Your task to perform on an android device: Show me the alarms in the clock app Image 0: 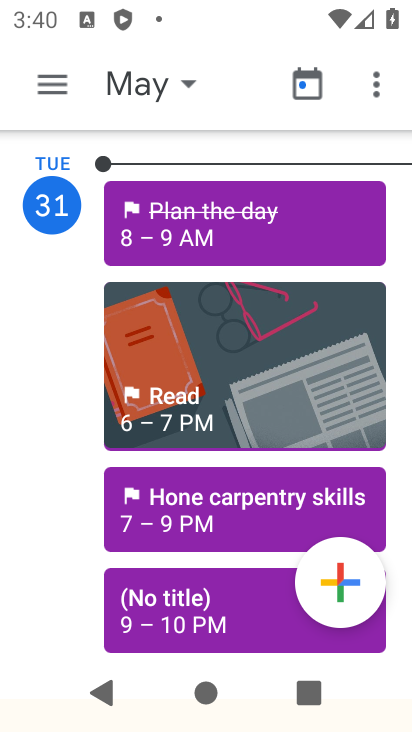
Step 0: task complete